Your task to perform on an android device: Clear all items from cart on walmart.com. Search for sony triple a on walmart.com, select the first entry, and add it to the cart. Image 0: 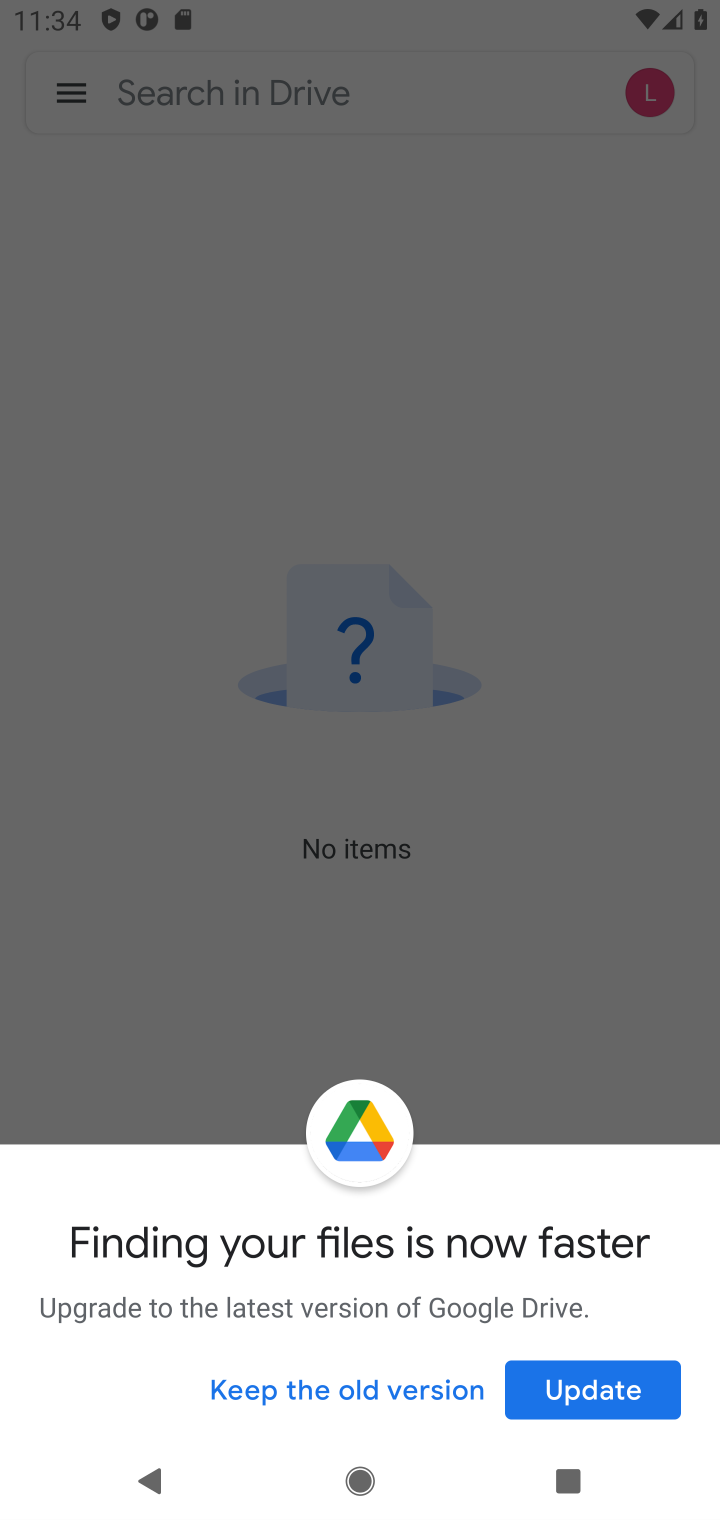
Step 0: press home button
Your task to perform on an android device: Clear all items from cart on walmart.com. Search for sony triple a on walmart.com, select the first entry, and add it to the cart. Image 1: 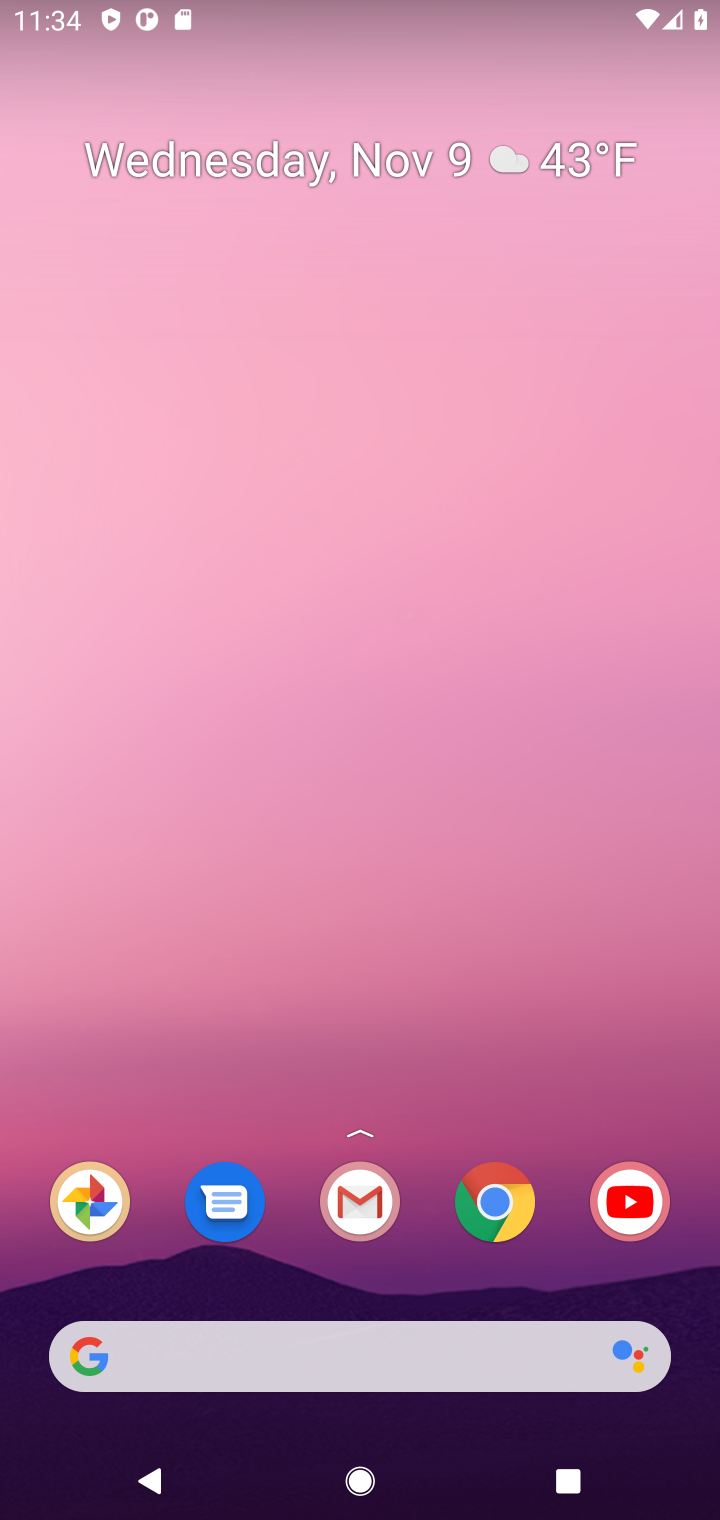
Step 1: click (501, 1199)
Your task to perform on an android device: Clear all items from cart on walmart.com. Search for sony triple a on walmart.com, select the first entry, and add it to the cart. Image 2: 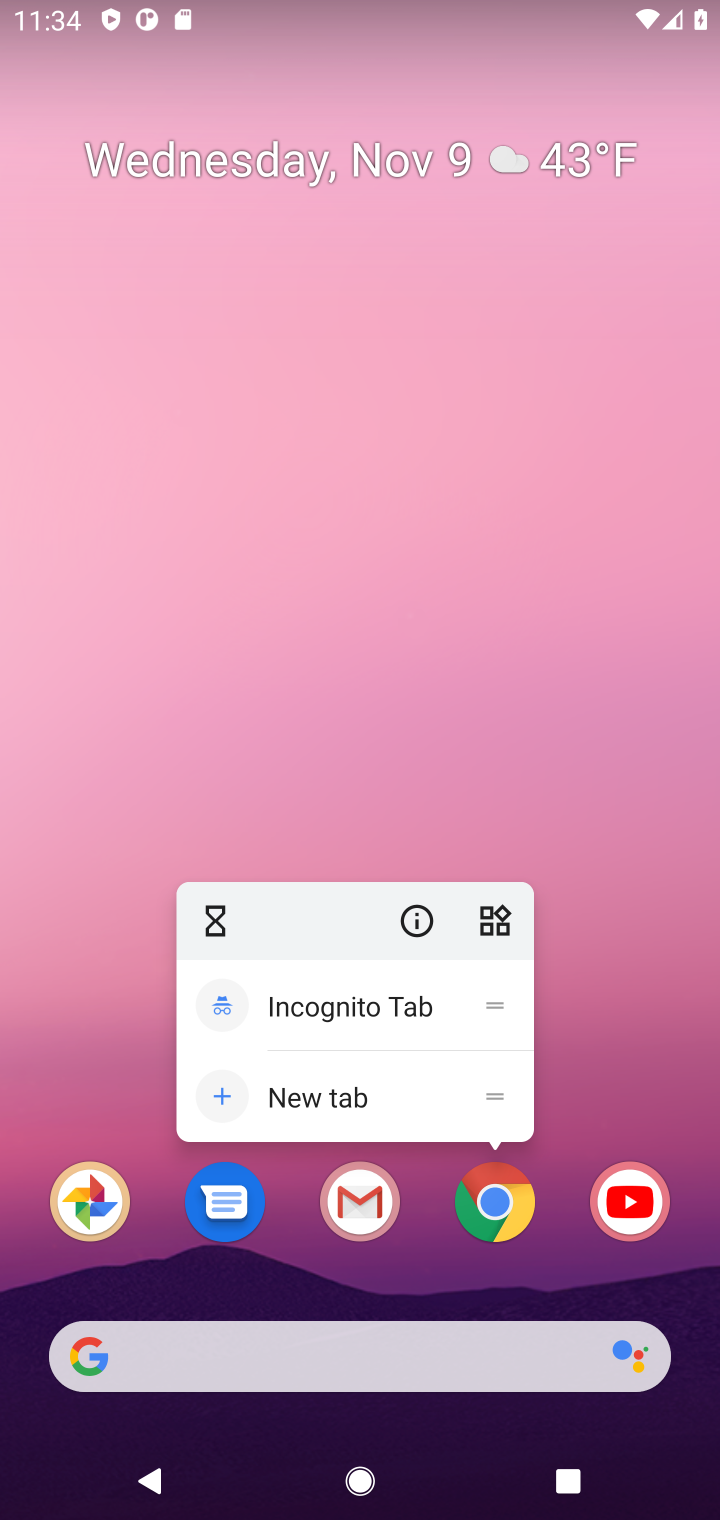
Step 2: click (501, 1199)
Your task to perform on an android device: Clear all items from cart on walmart.com. Search for sony triple a on walmart.com, select the first entry, and add it to the cart. Image 3: 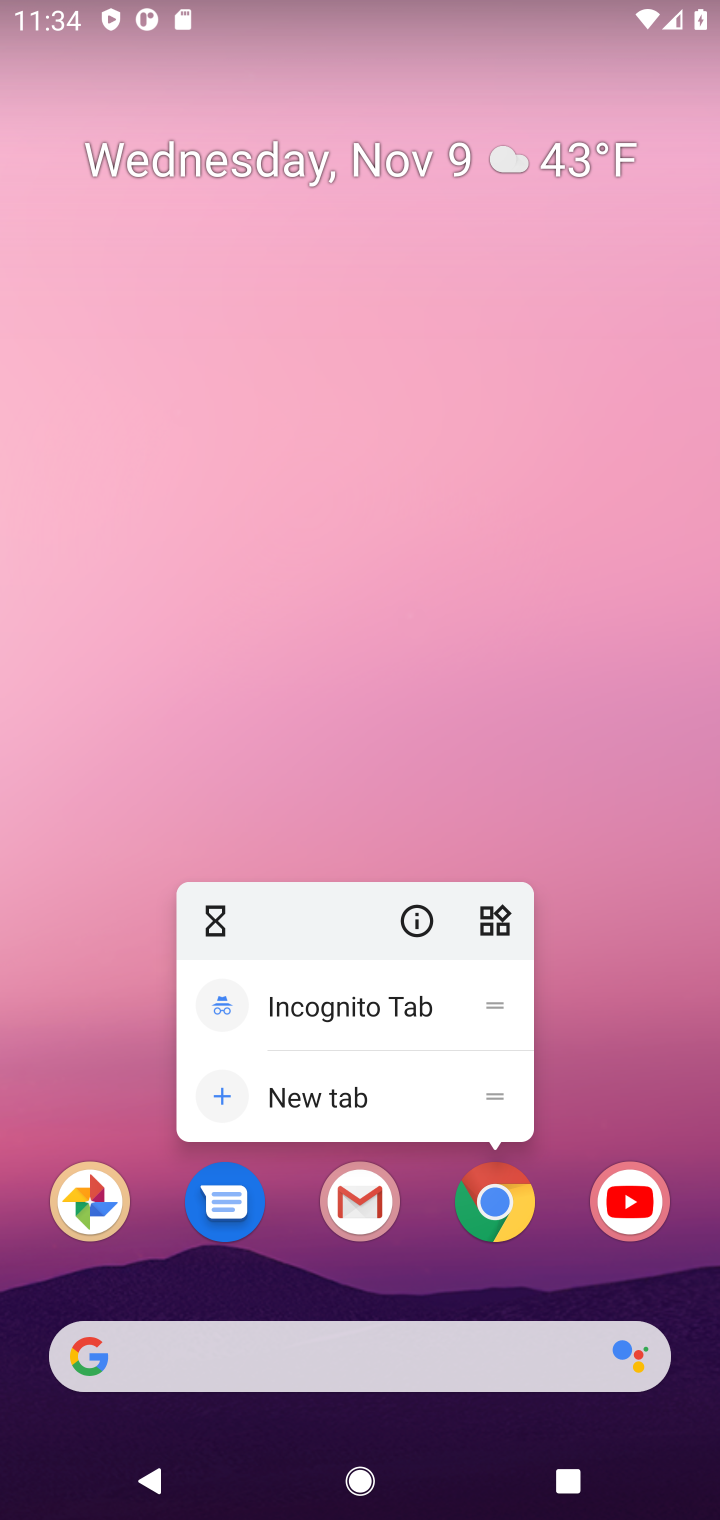
Step 3: click (501, 1199)
Your task to perform on an android device: Clear all items from cart on walmart.com. Search for sony triple a on walmart.com, select the first entry, and add it to the cart. Image 4: 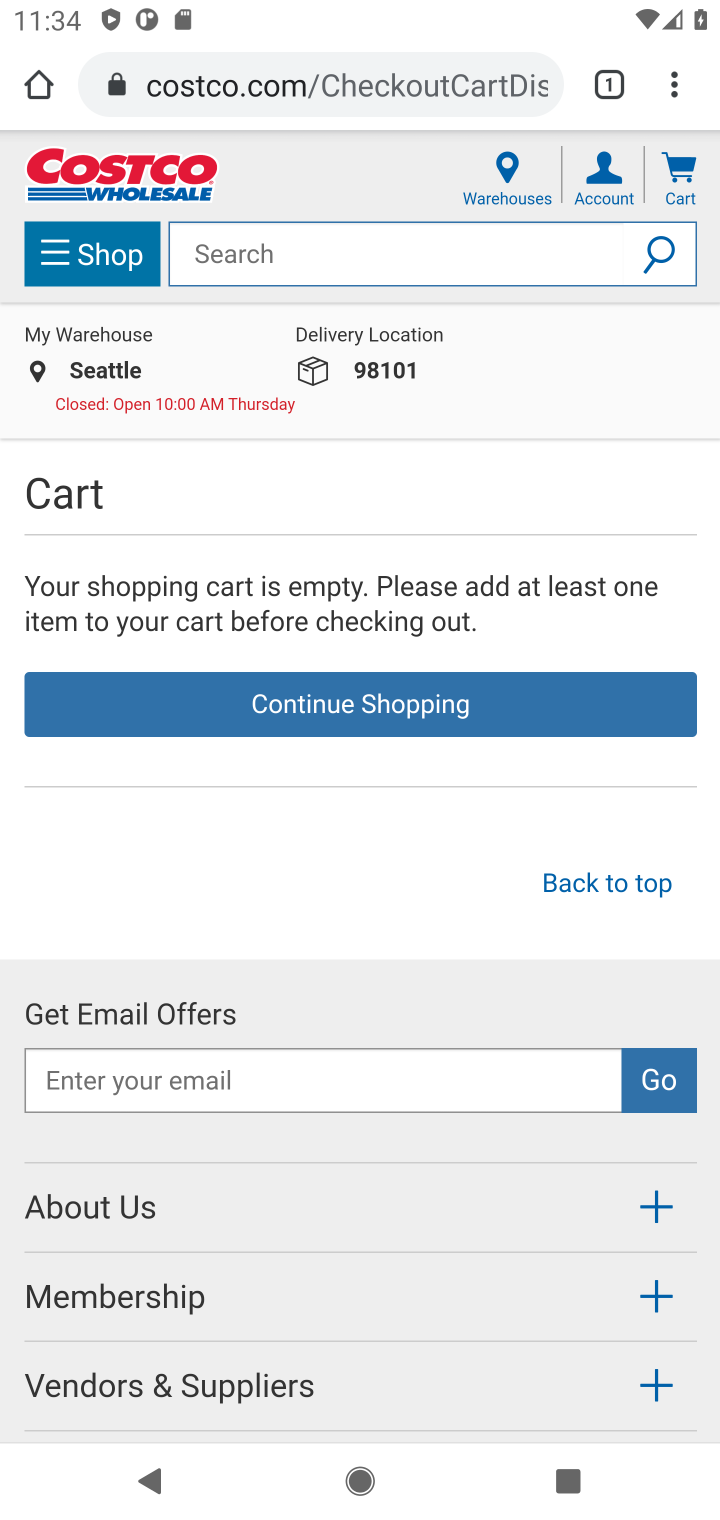
Step 4: click (477, 80)
Your task to perform on an android device: Clear all items from cart on walmart.com. Search for sony triple a on walmart.com, select the first entry, and add it to the cart. Image 5: 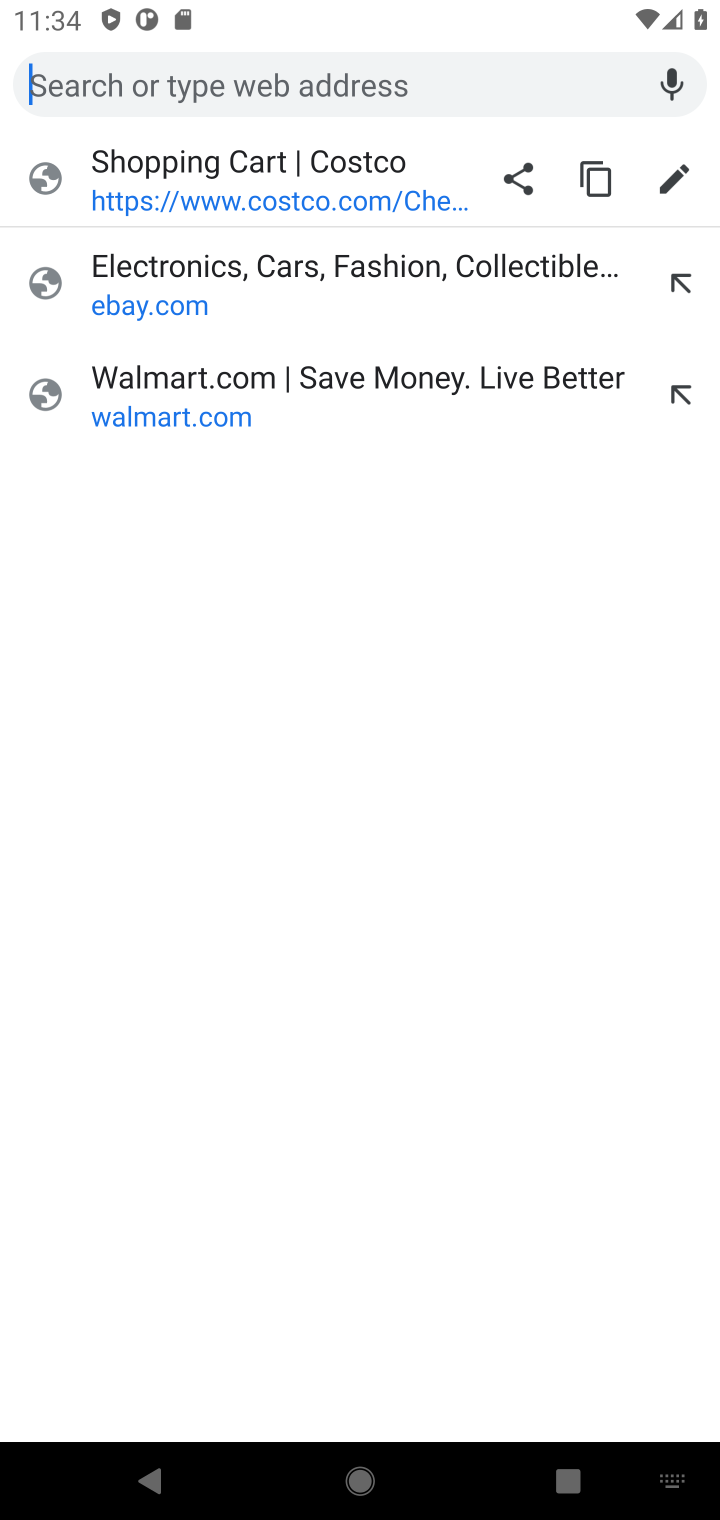
Step 5: type "walmart.com"
Your task to perform on an android device: Clear all items from cart on walmart.com. Search for sony triple a on walmart.com, select the first entry, and add it to the cart. Image 6: 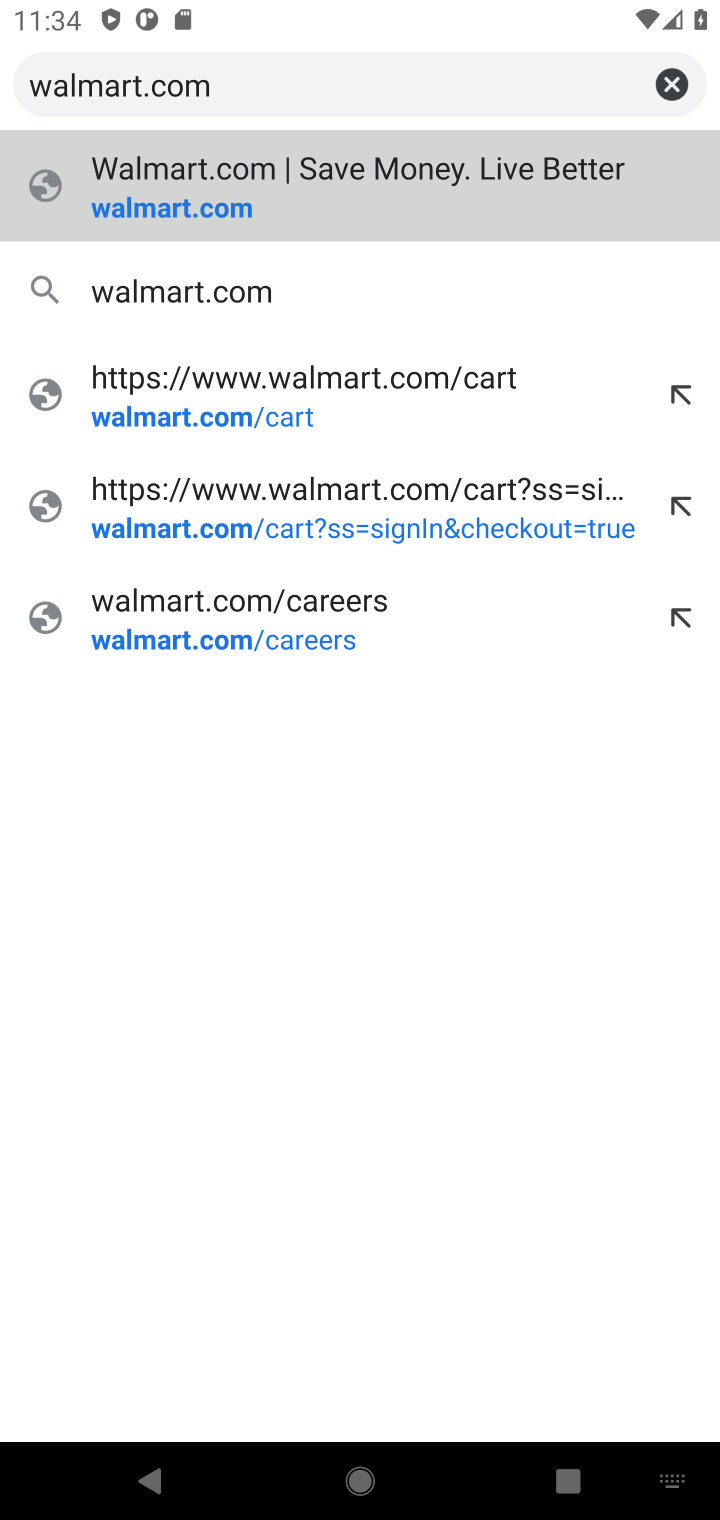
Step 6: press enter
Your task to perform on an android device: Clear all items from cart on walmart.com. Search for sony triple a on walmart.com, select the first entry, and add it to the cart. Image 7: 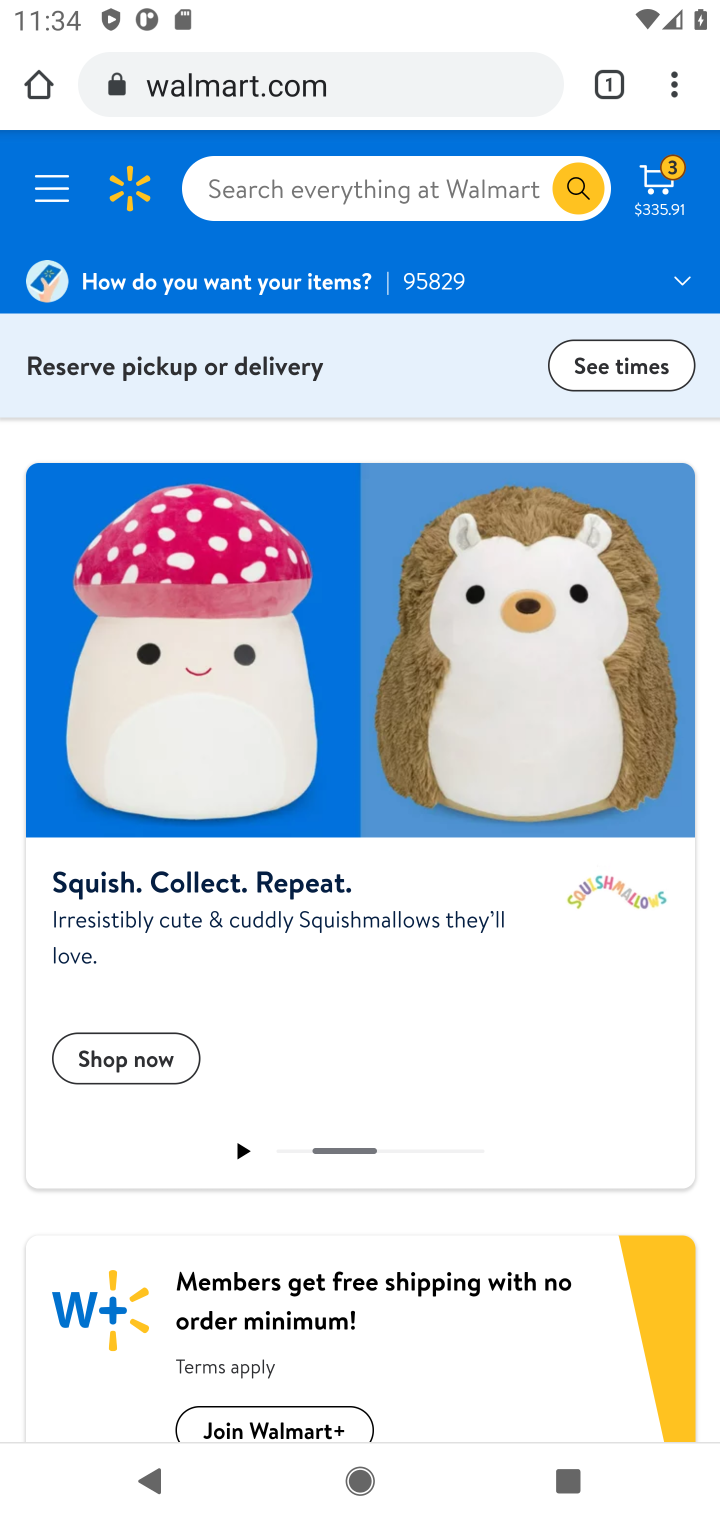
Step 7: click (654, 203)
Your task to perform on an android device: Clear all items from cart on walmart.com. Search for sony triple a on walmart.com, select the first entry, and add it to the cart. Image 8: 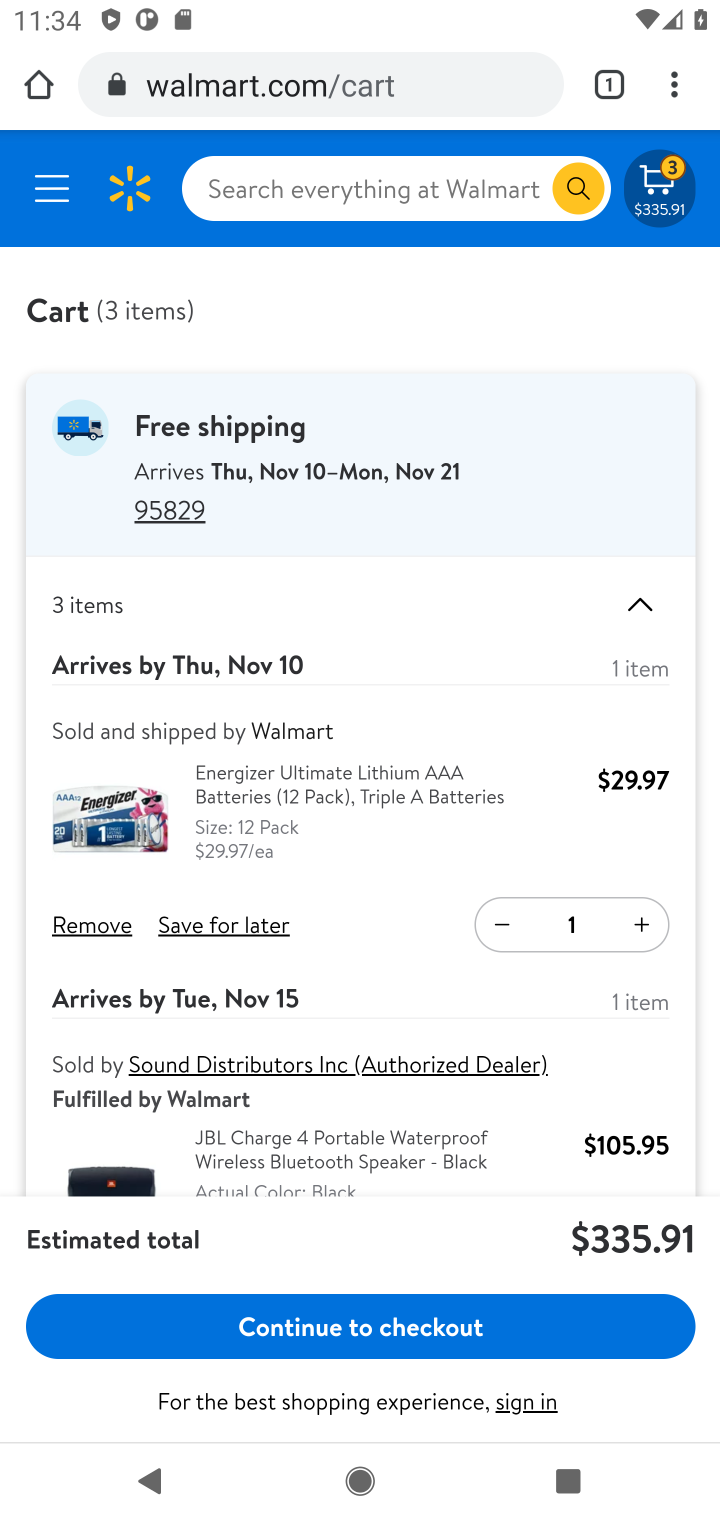
Step 8: click (64, 915)
Your task to perform on an android device: Clear all items from cart on walmart.com. Search for sony triple a on walmart.com, select the first entry, and add it to the cart. Image 9: 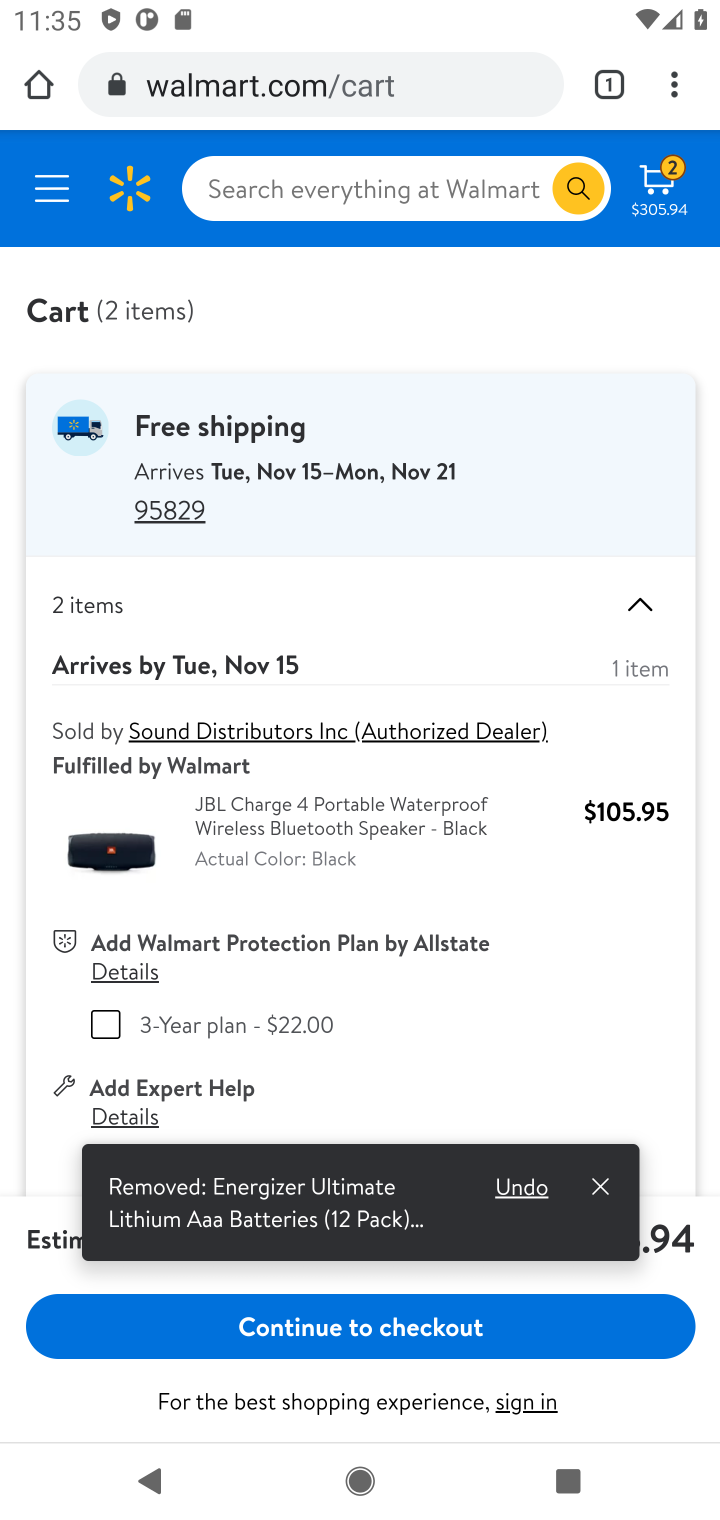
Step 9: drag from (474, 992) to (495, 512)
Your task to perform on an android device: Clear all items from cart on walmart.com. Search for sony triple a on walmart.com, select the first entry, and add it to the cart. Image 10: 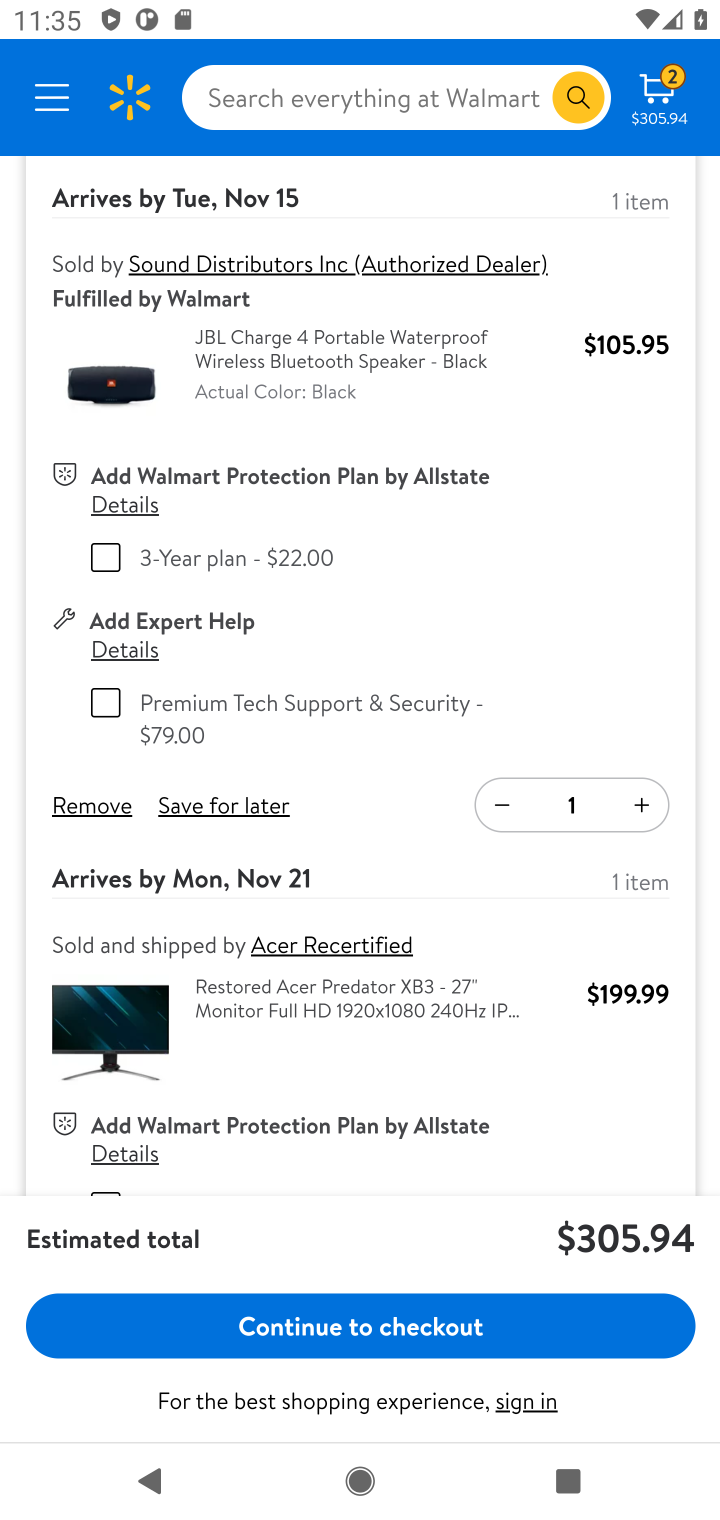
Step 10: click (113, 807)
Your task to perform on an android device: Clear all items from cart on walmart.com. Search for sony triple a on walmart.com, select the first entry, and add it to the cart. Image 11: 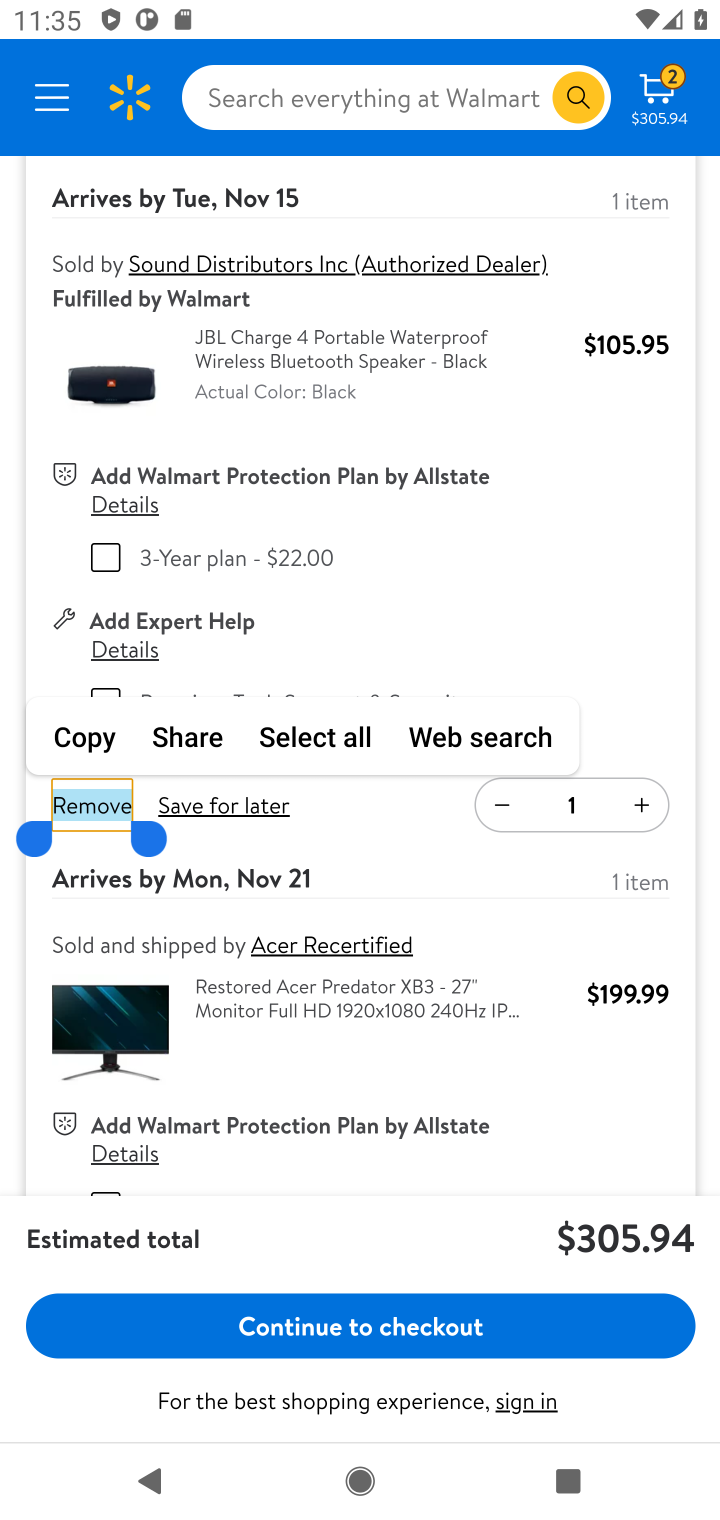
Step 11: click (101, 810)
Your task to perform on an android device: Clear all items from cart on walmart.com. Search for sony triple a on walmart.com, select the first entry, and add it to the cart. Image 12: 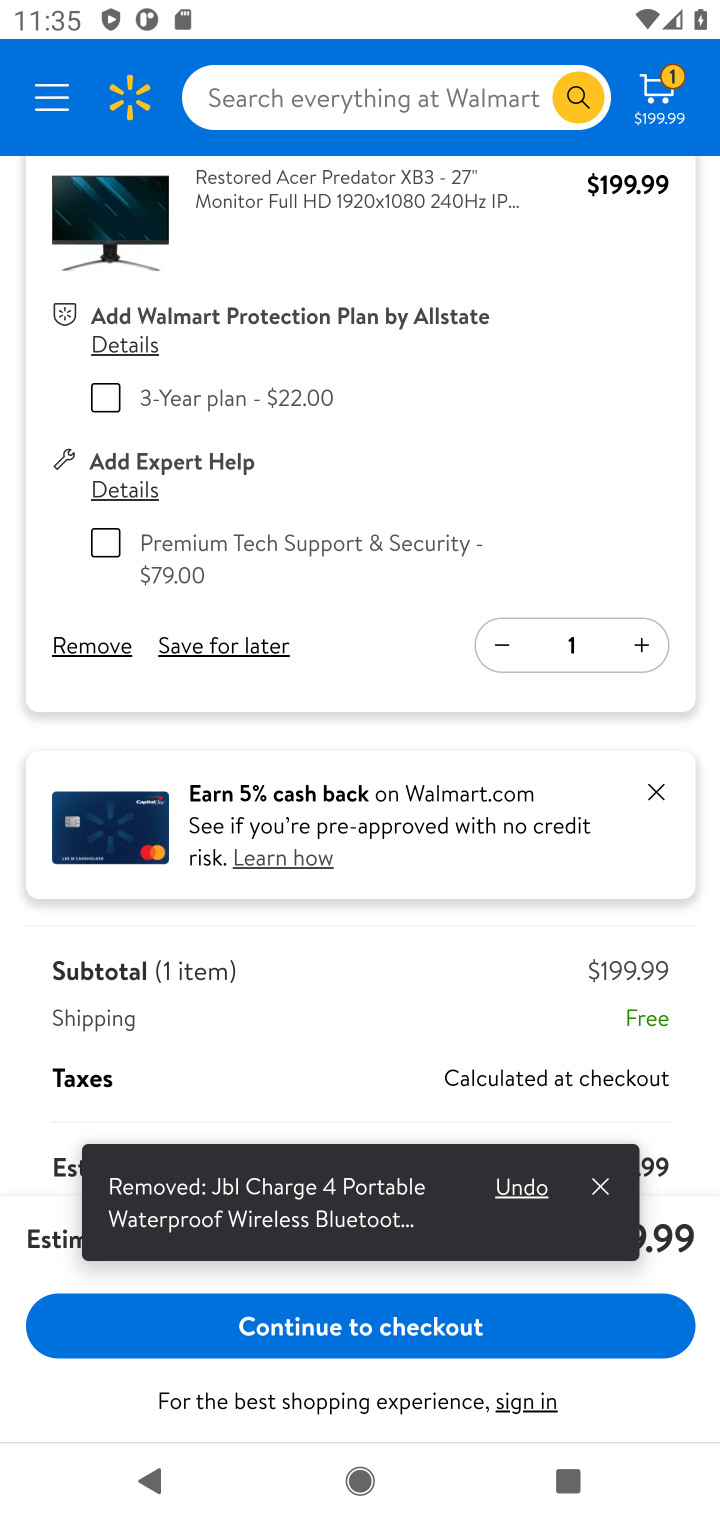
Step 12: click (329, 1001)
Your task to perform on an android device: Clear all items from cart on walmart.com. Search for sony triple a on walmart.com, select the first entry, and add it to the cart. Image 13: 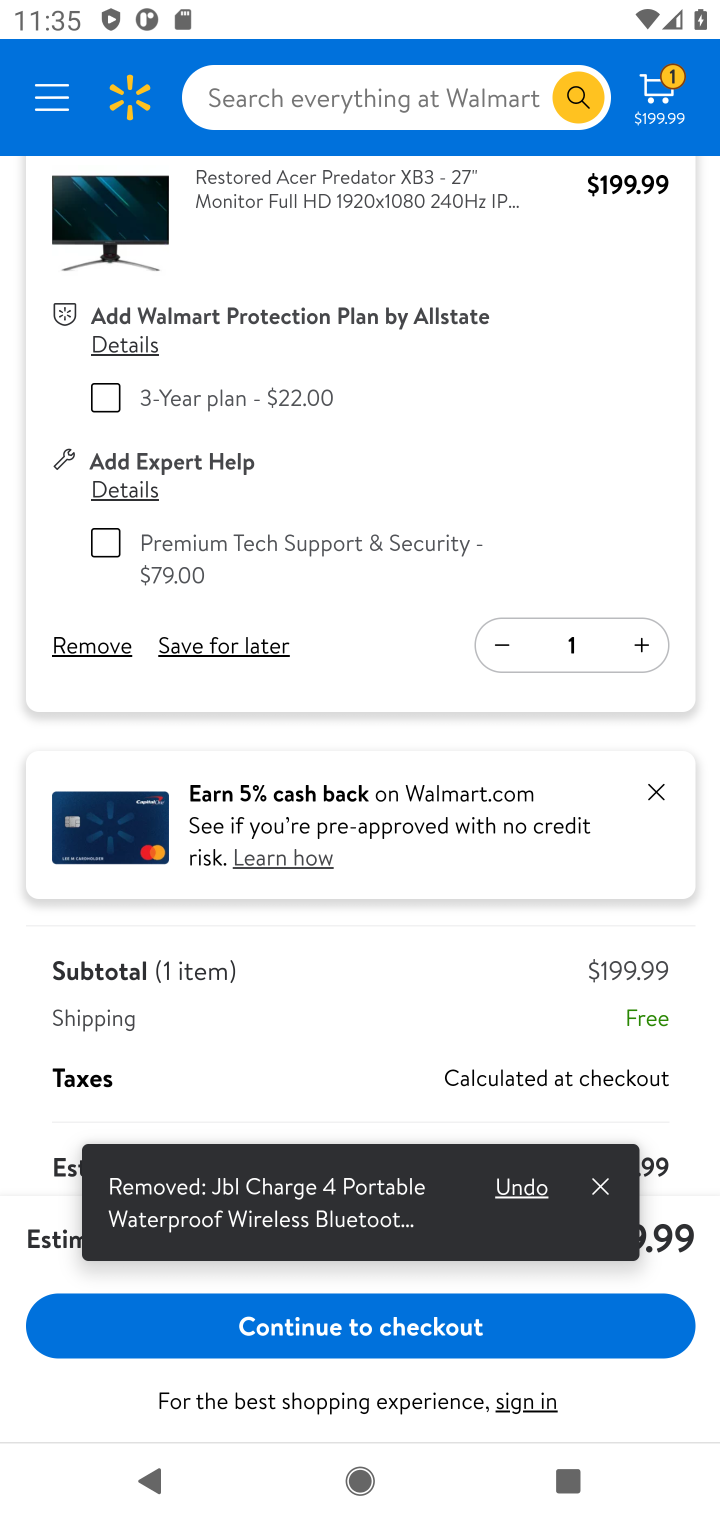
Step 13: click (75, 641)
Your task to perform on an android device: Clear all items from cart on walmart.com. Search for sony triple a on walmart.com, select the first entry, and add it to the cart. Image 14: 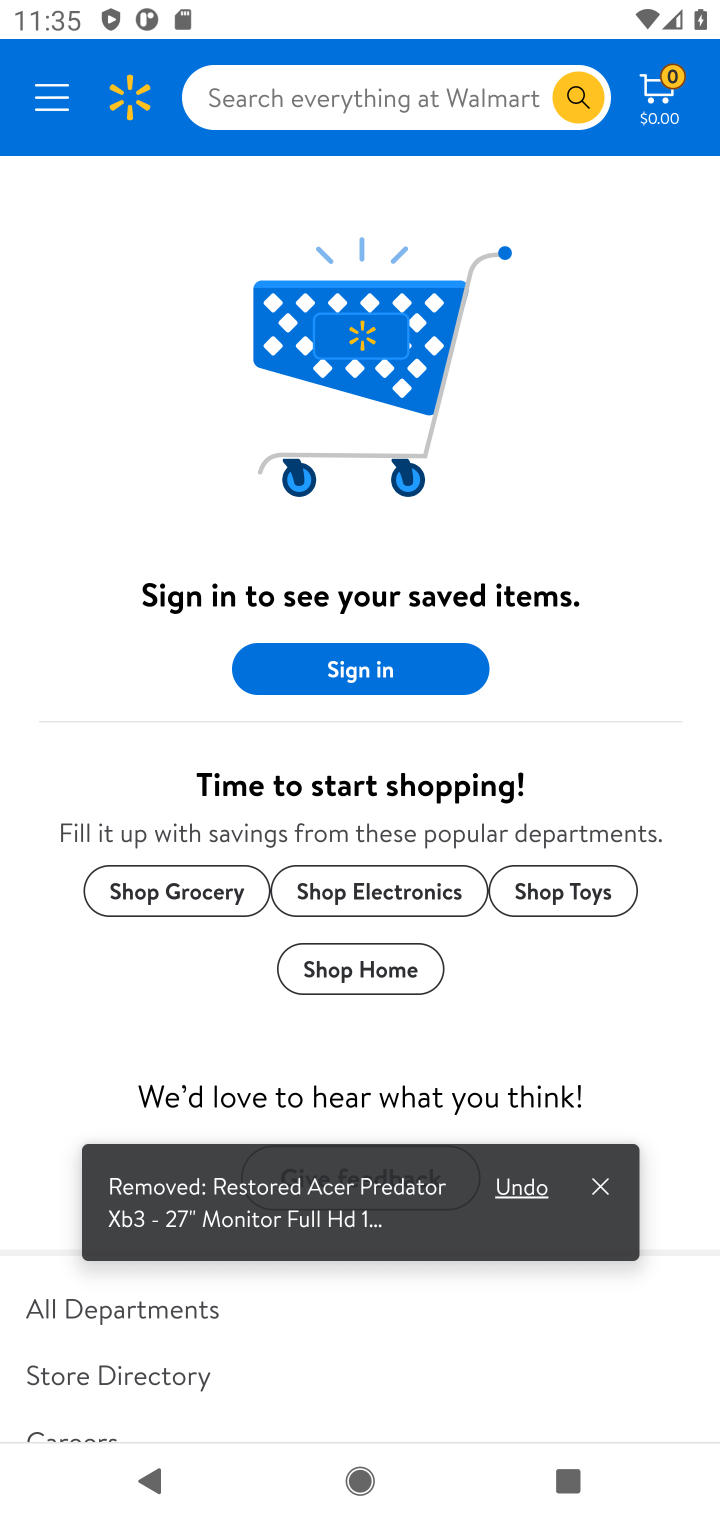
Step 14: click (434, 94)
Your task to perform on an android device: Clear all items from cart on walmart.com. Search for sony triple a on walmart.com, select the first entry, and add it to the cart. Image 15: 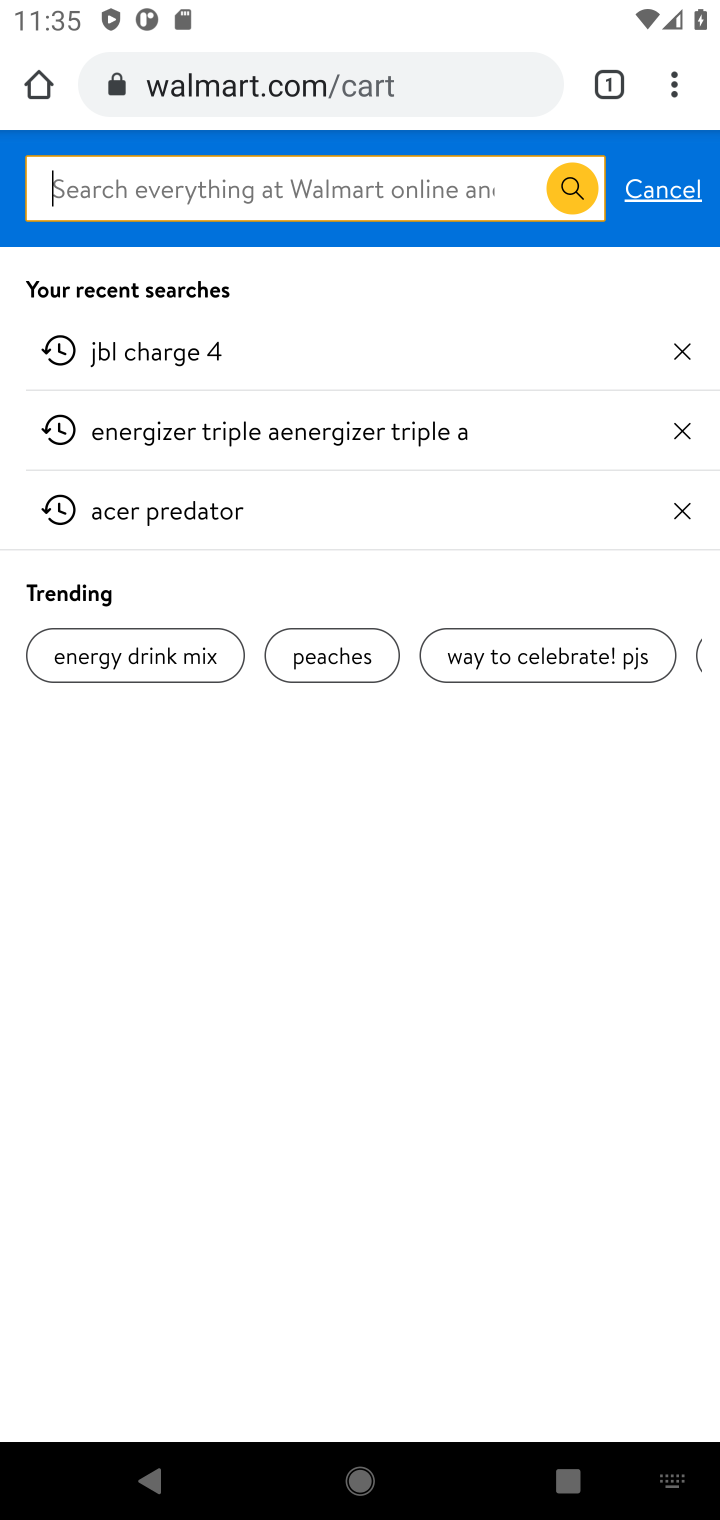
Step 15: click (446, 197)
Your task to perform on an android device: Clear all items from cart on walmart.com. Search for sony triple a on walmart.com, select the first entry, and add it to the cart. Image 16: 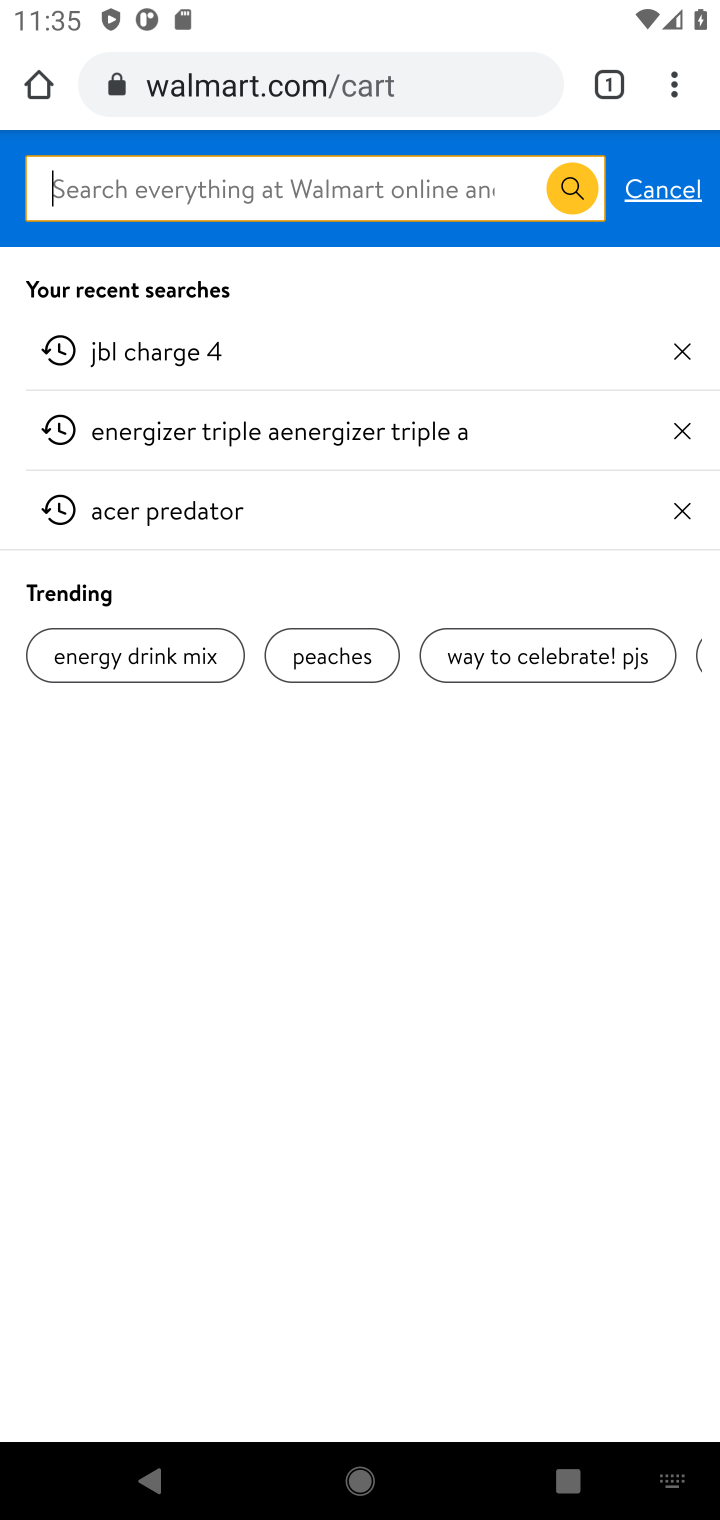
Step 16: press enter
Your task to perform on an android device: Clear all items from cart on walmart.com. Search for sony triple a on walmart.com, select the first entry, and add it to the cart. Image 17: 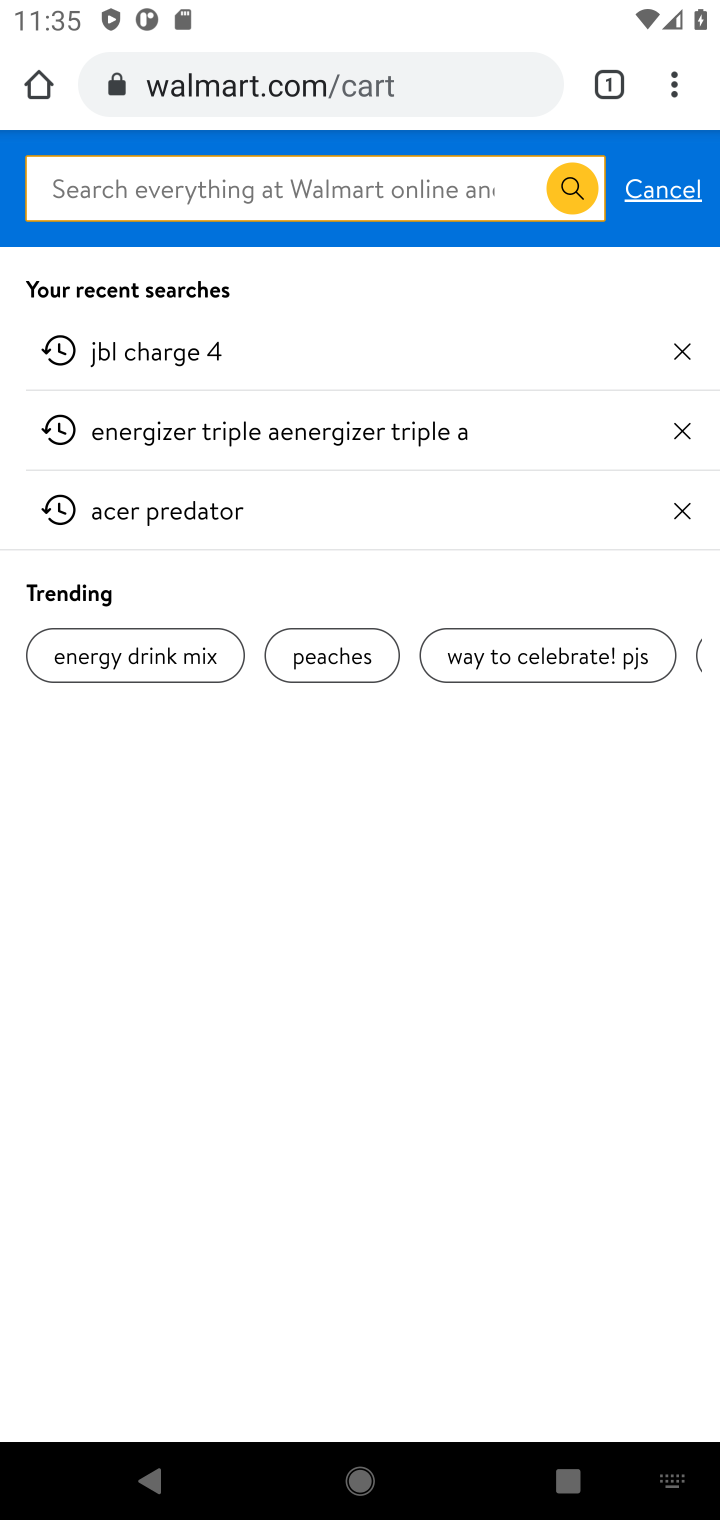
Step 17: type "sony triple a"
Your task to perform on an android device: Clear all items from cart on walmart.com. Search for sony triple a on walmart.com, select the first entry, and add it to the cart. Image 18: 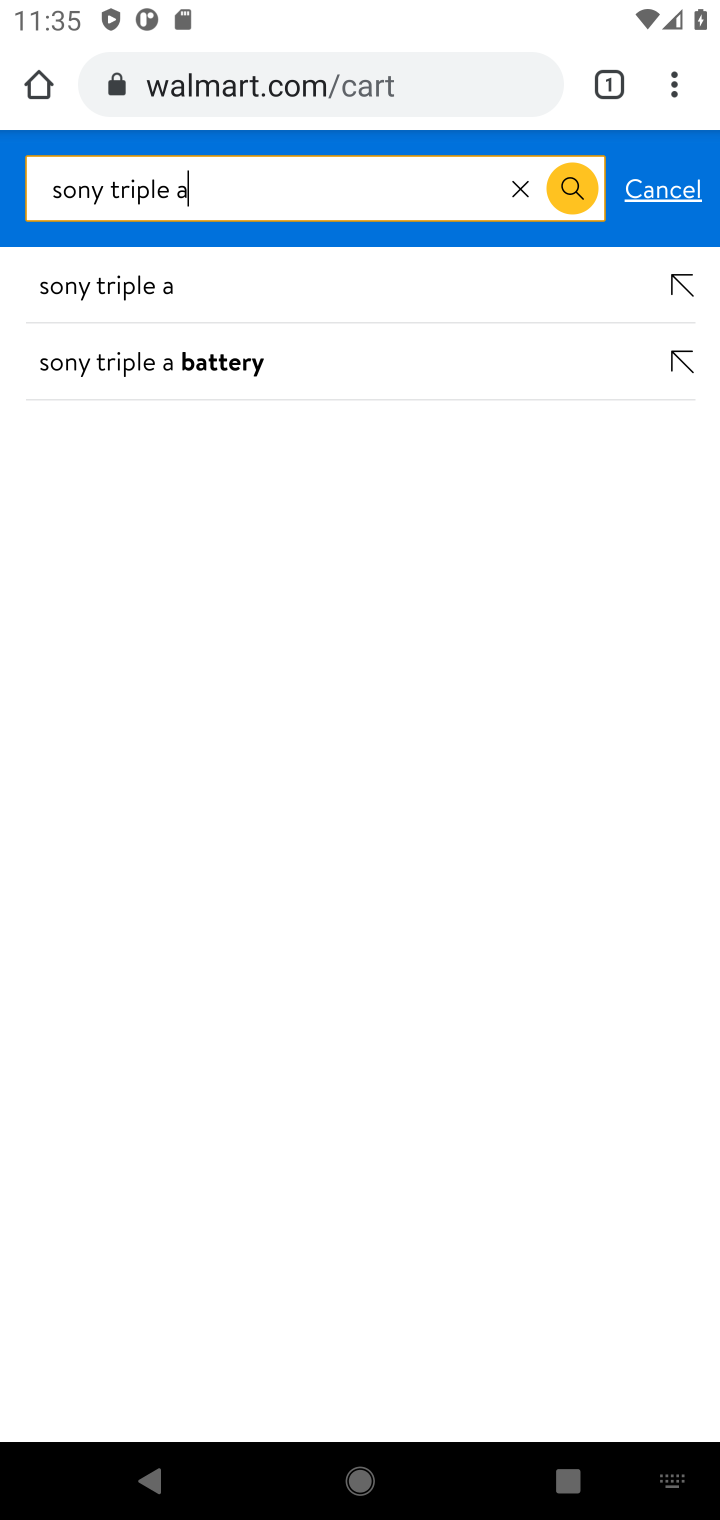
Step 18: click (113, 288)
Your task to perform on an android device: Clear all items from cart on walmart.com. Search for sony triple a on walmart.com, select the first entry, and add it to the cart. Image 19: 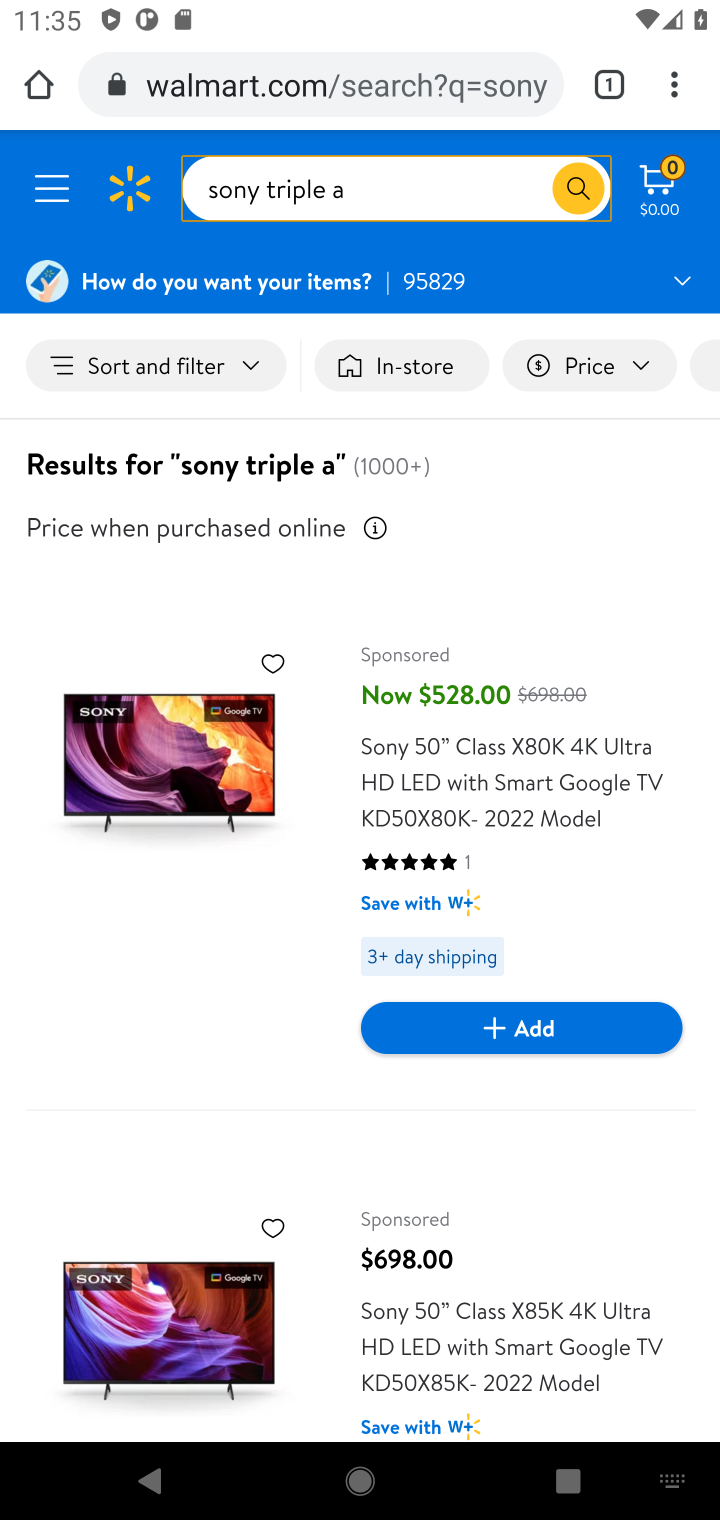
Step 19: drag from (621, 1188) to (596, 904)
Your task to perform on an android device: Clear all items from cart on walmart.com. Search for sony triple a on walmart.com, select the first entry, and add it to the cart. Image 20: 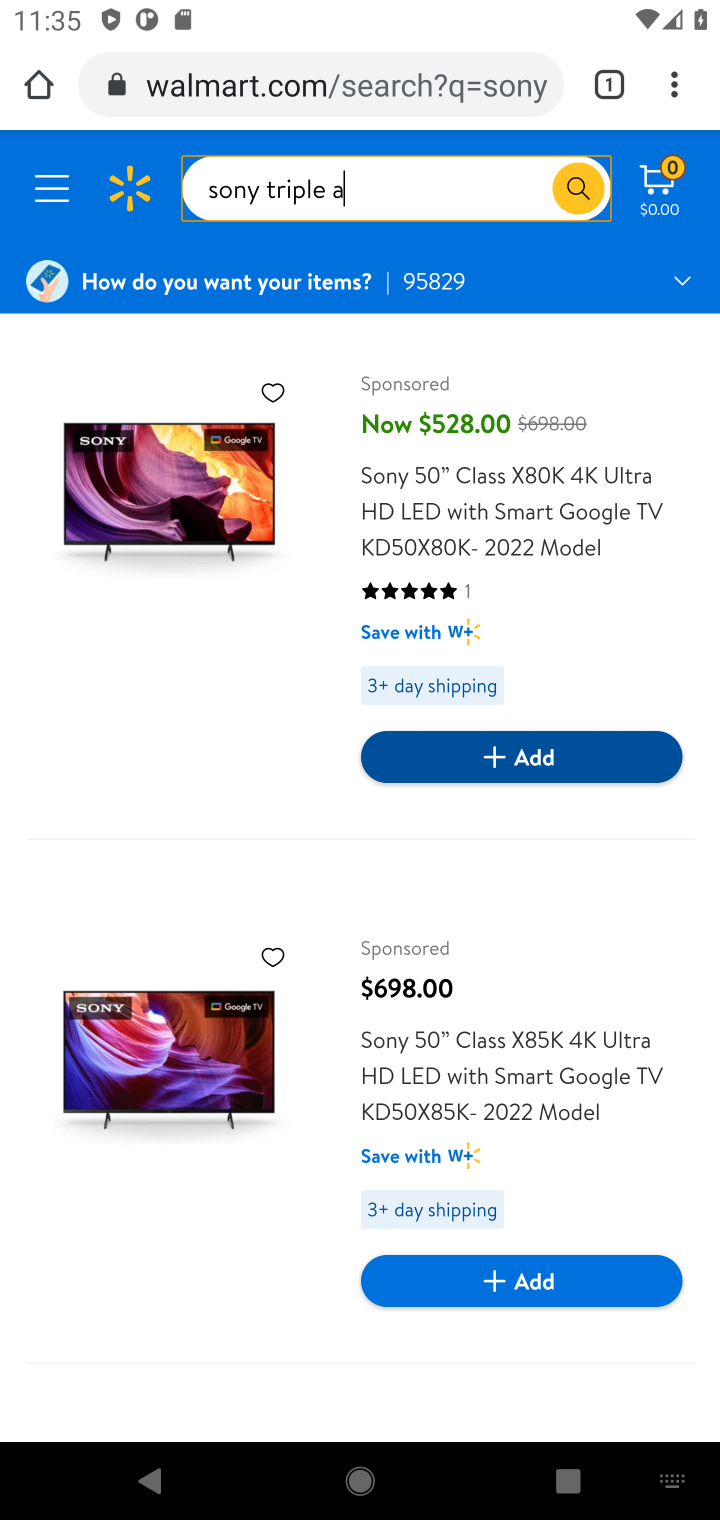
Step 20: drag from (559, 1019) to (669, 450)
Your task to perform on an android device: Clear all items from cart on walmart.com. Search for sony triple a on walmart.com, select the first entry, and add it to the cart. Image 21: 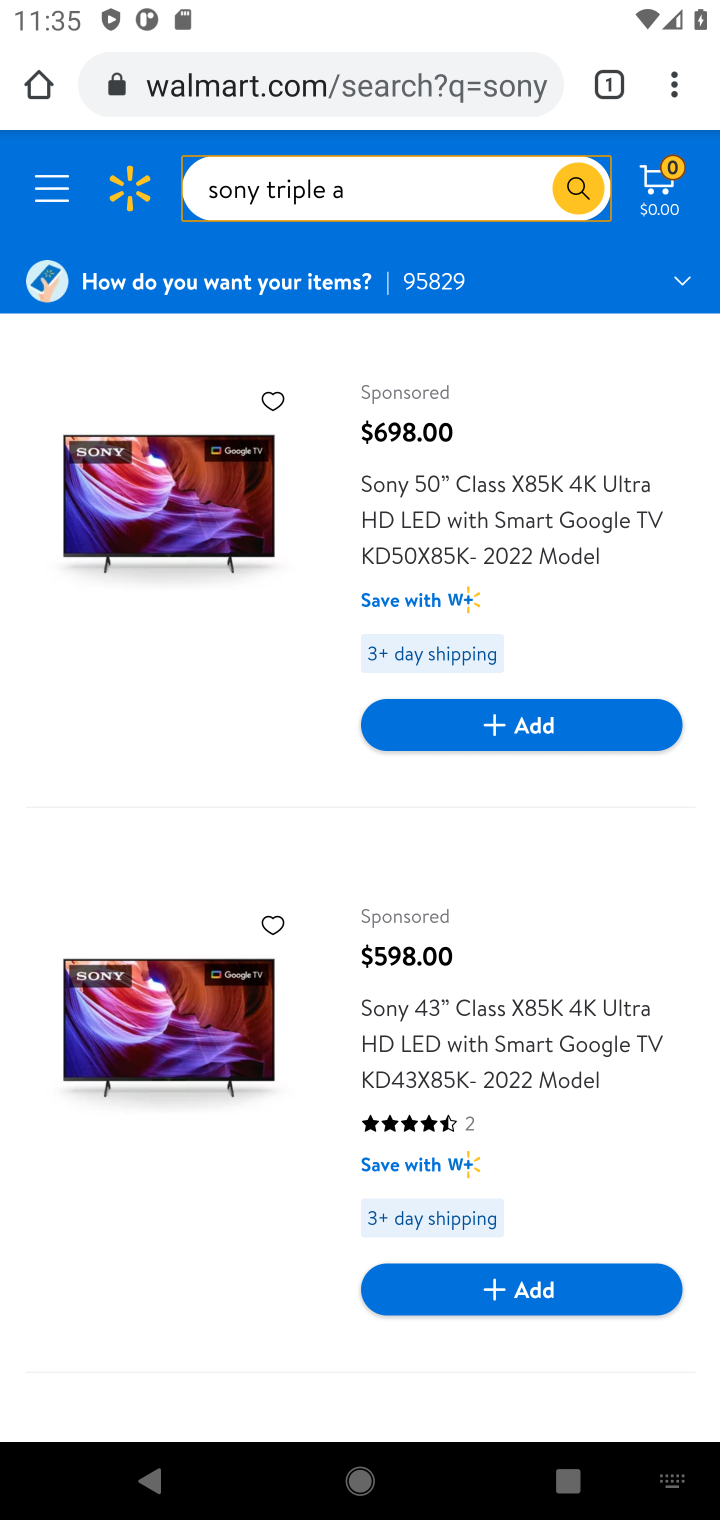
Step 21: drag from (623, 1115) to (668, 823)
Your task to perform on an android device: Clear all items from cart on walmart.com. Search for sony triple a on walmart.com, select the first entry, and add it to the cart. Image 22: 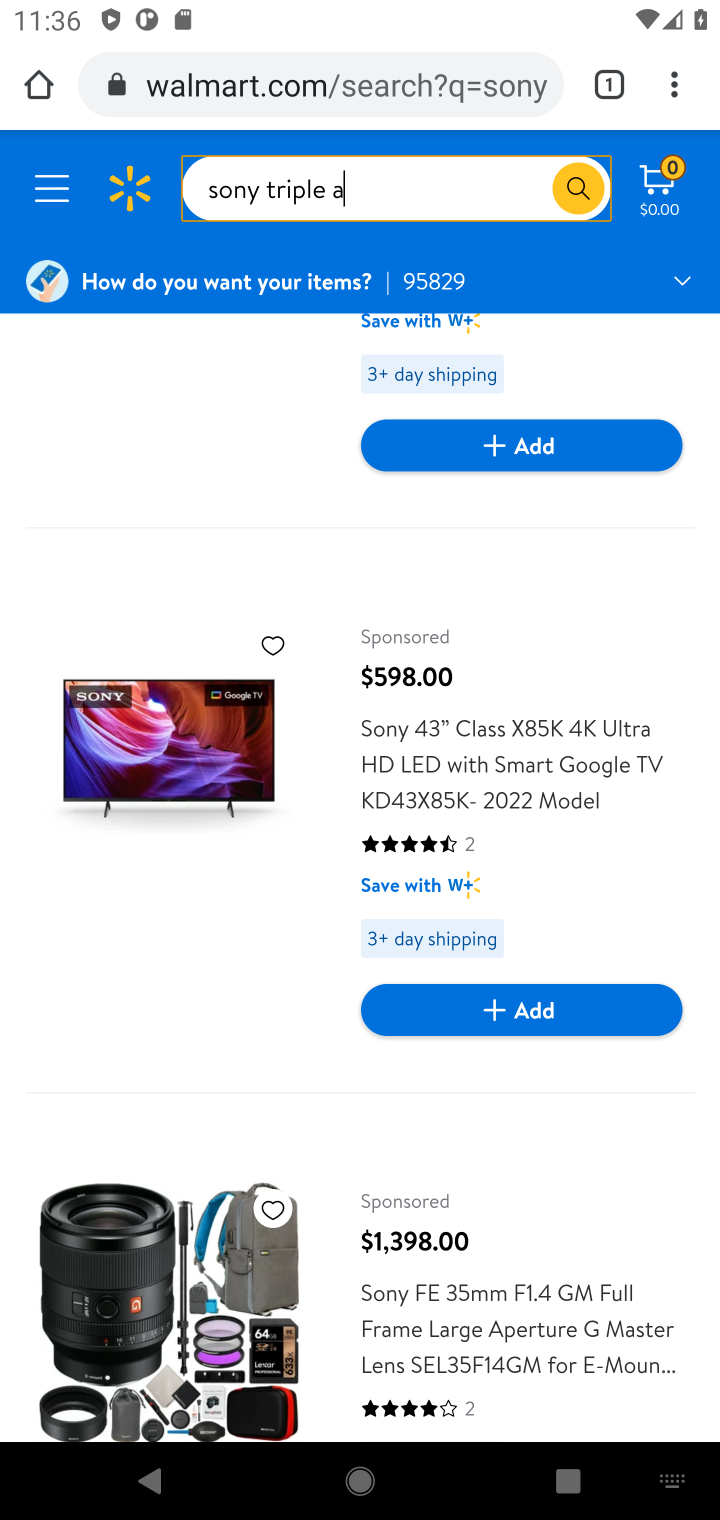
Step 22: click (197, 748)
Your task to perform on an android device: Clear all items from cart on walmart.com. Search for sony triple a on walmart.com, select the first entry, and add it to the cart. Image 23: 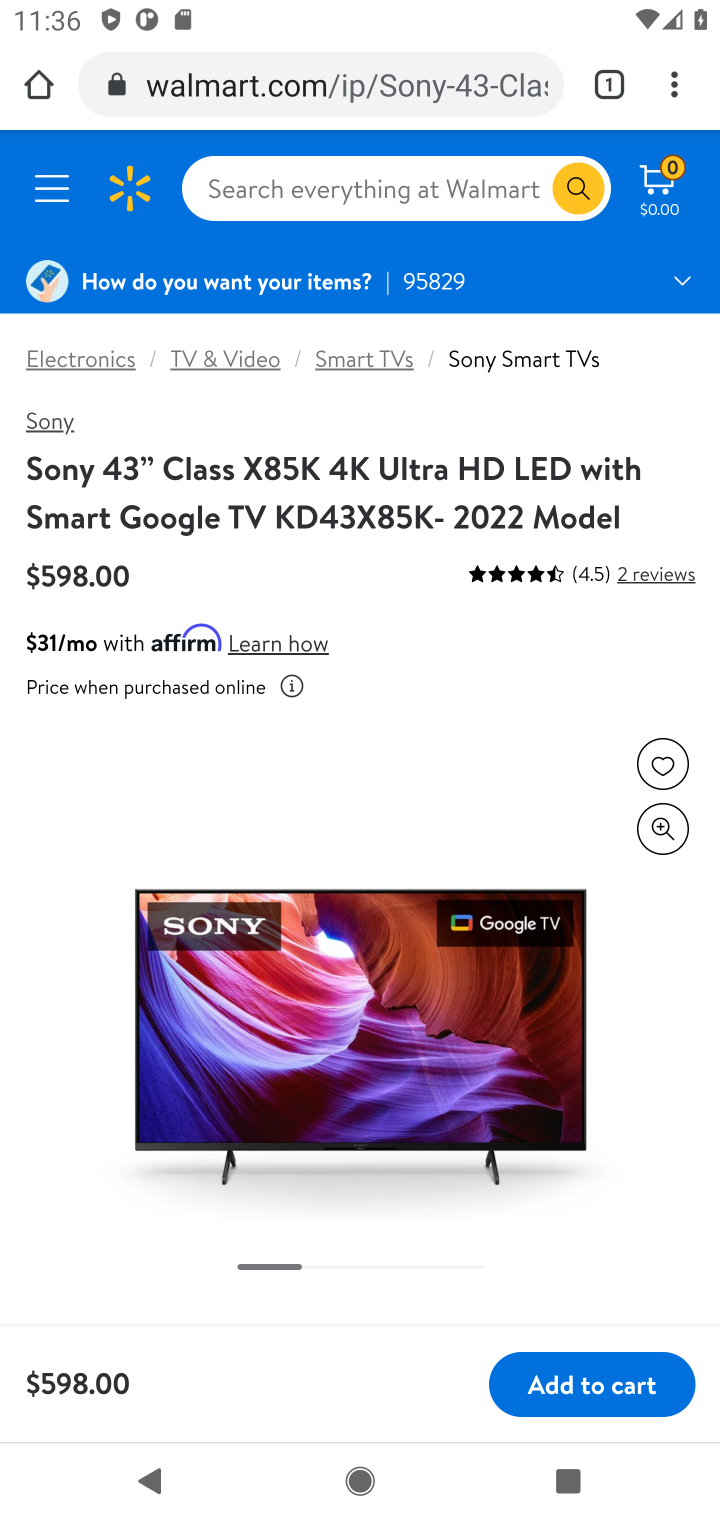
Step 23: click (581, 1388)
Your task to perform on an android device: Clear all items from cart on walmart.com. Search for sony triple a on walmart.com, select the first entry, and add it to the cart. Image 24: 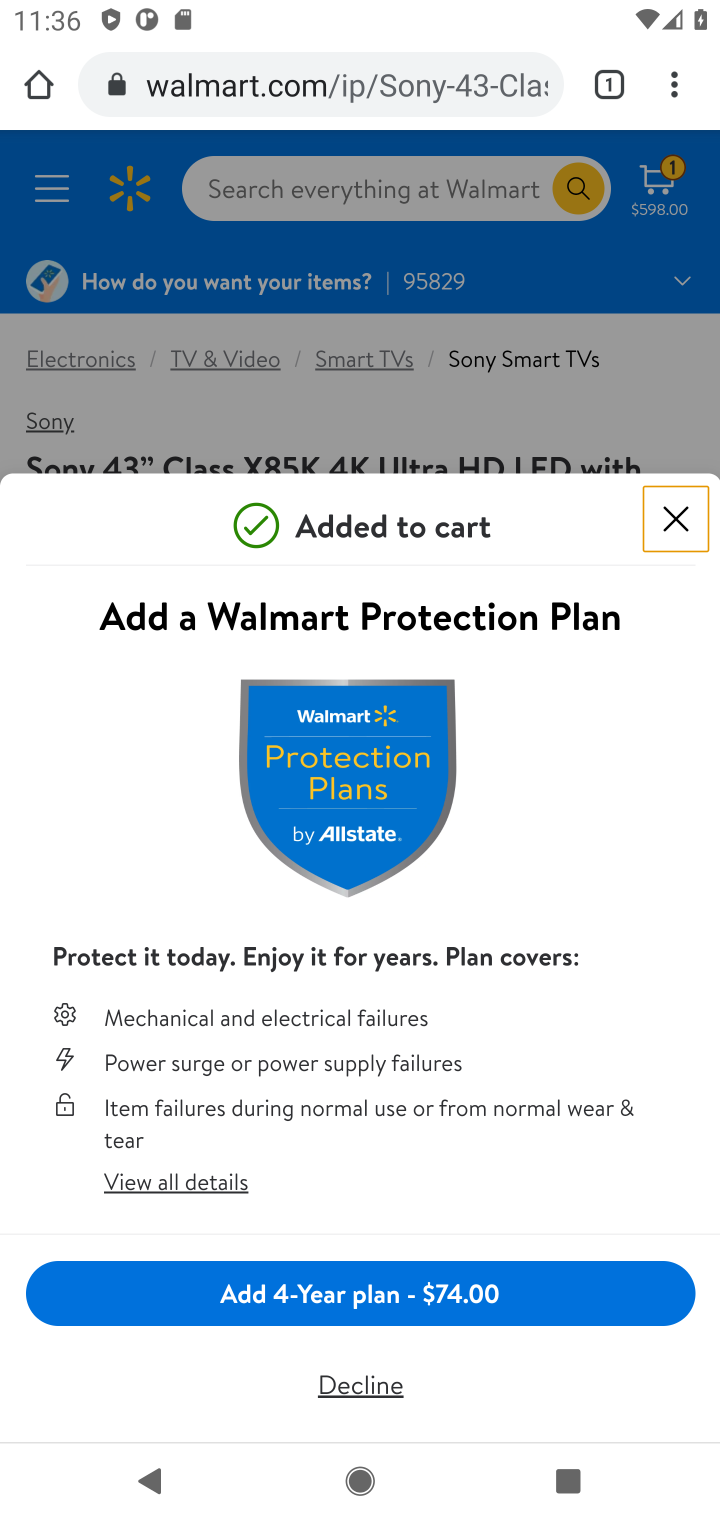
Step 24: task complete